Your task to perform on an android device: Go to notification settings Image 0: 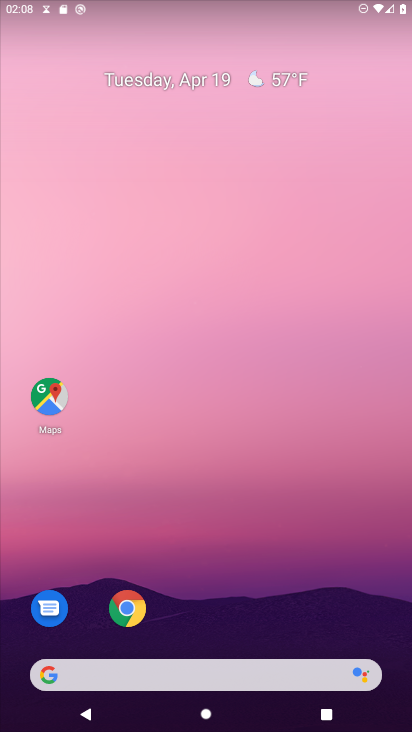
Step 0: drag from (250, 556) to (174, 180)
Your task to perform on an android device: Go to notification settings Image 1: 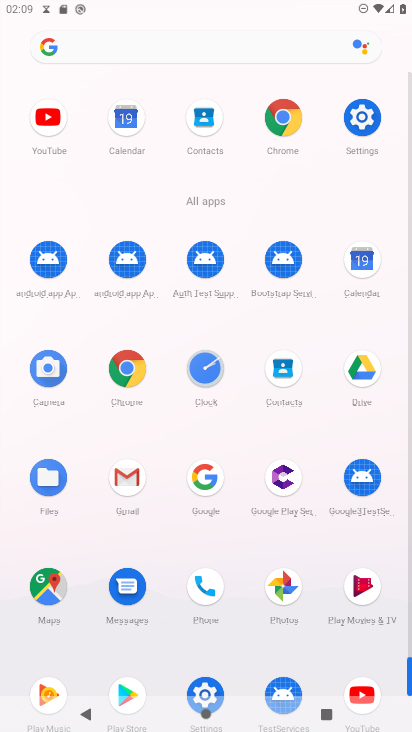
Step 1: click (364, 114)
Your task to perform on an android device: Go to notification settings Image 2: 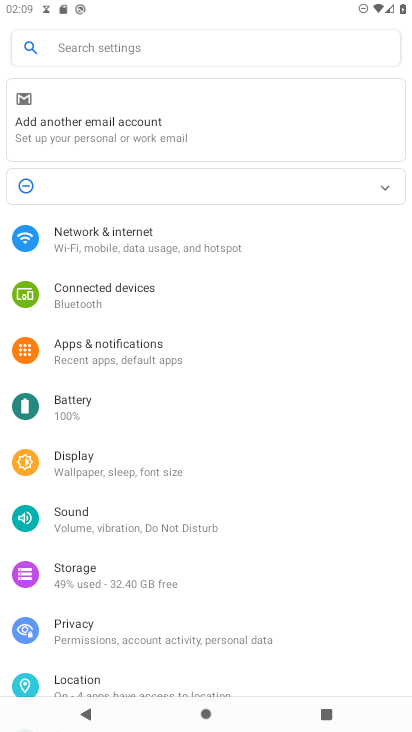
Step 2: click (141, 349)
Your task to perform on an android device: Go to notification settings Image 3: 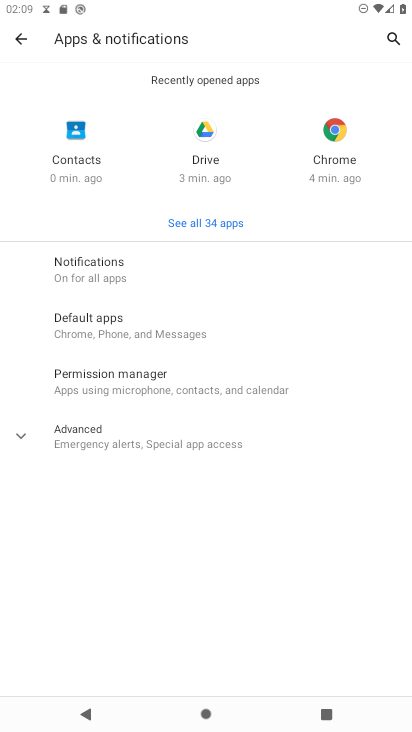
Step 3: click (129, 269)
Your task to perform on an android device: Go to notification settings Image 4: 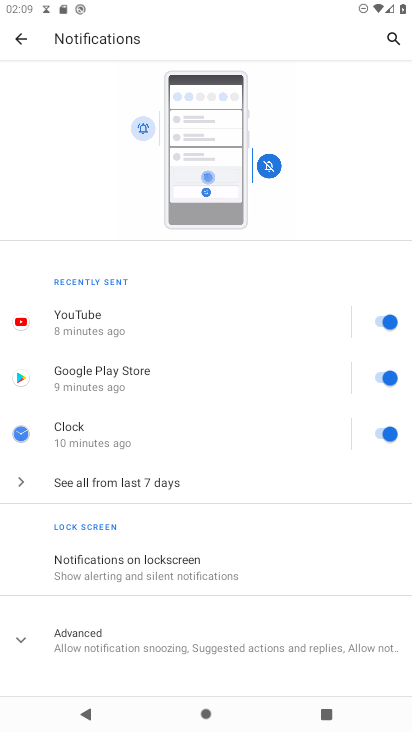
Step 4: drag from (166, 605) to (153, 327)
Your task to perform on an android device: Go to notification settings Image 5: 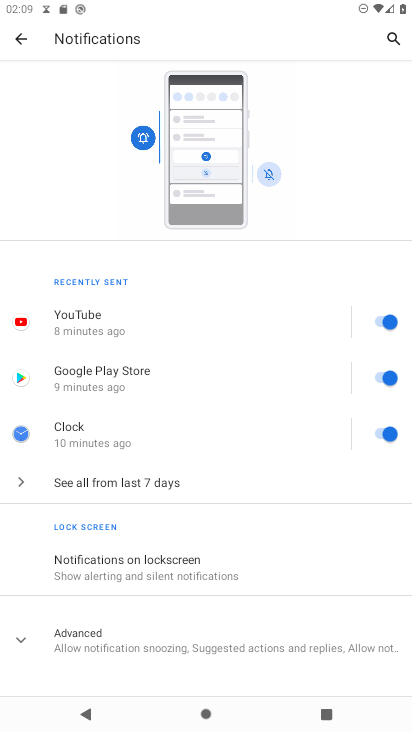
Step 5: click (119, 642)
Your task to perform on an android device: Go to notification settings Image 6: 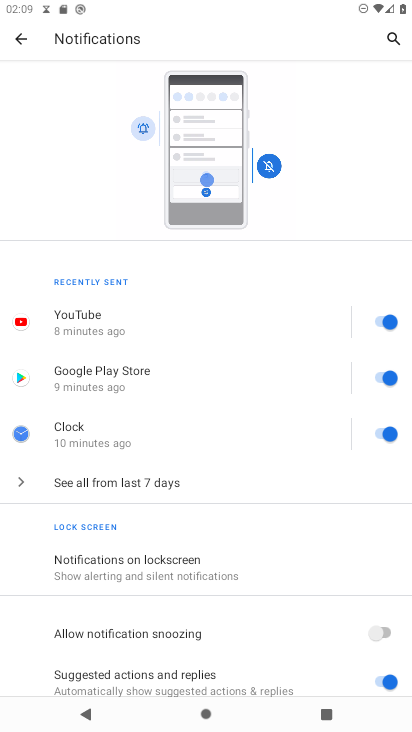
Step 6: task complete